Your task to perform on an android device: Show me productivity apps on the Play Store Image 0: 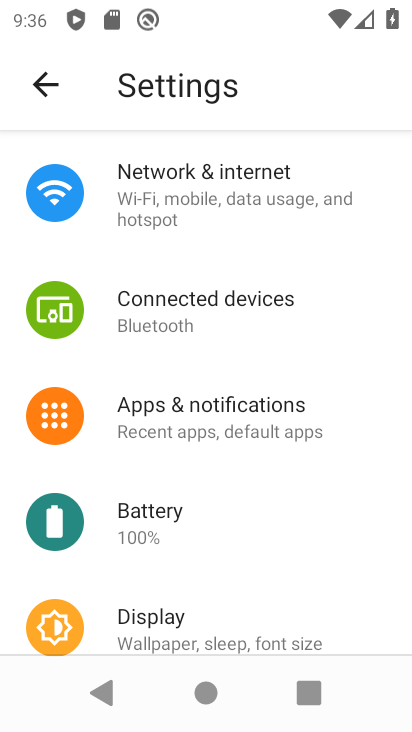
Step 0: press home button
Your task to perform on an android device: Show me productivity apps on the Play Store Image 1: 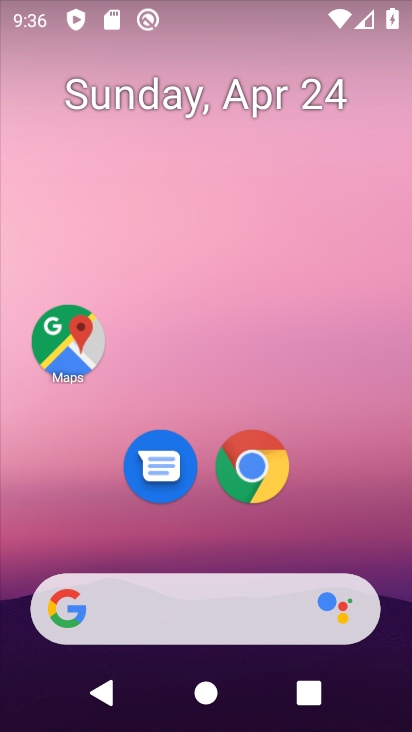
Step 1: drag from (370, 519) to (340, 0)
Your task to perform on an android device: Show me productivity apps on the Play Store Image 2: 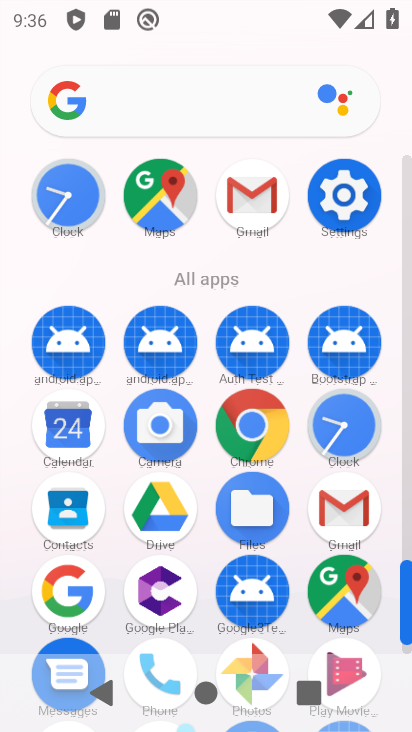
Step 2: drag from (285, 284) to (264, 56)
Your task to perform on an android device: Show me productivity apps on the Play Store Image 3: 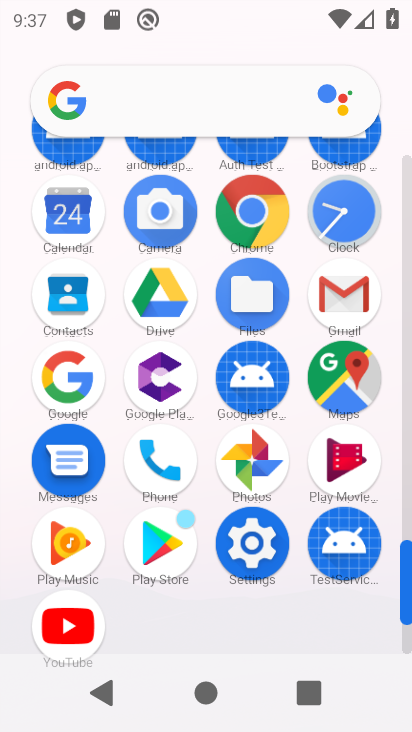
Step 3: click (140, 531)
Your task to perform on an android device: Show me productivity apps on the Play Store Image 4: 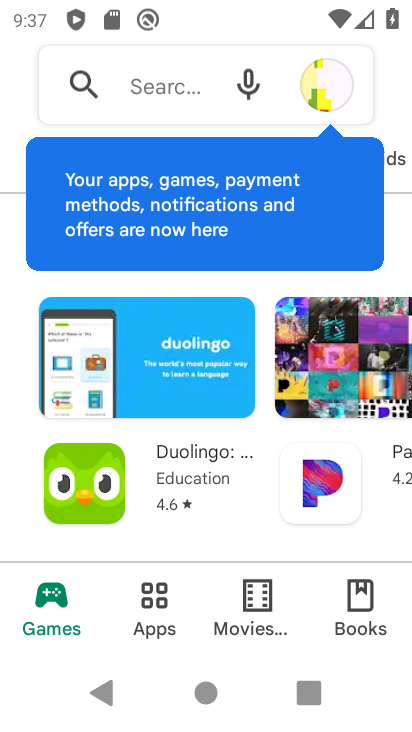
Step 4: click (161, 631)
Your task to perform on an android device: Show me productivity apps on the Play Store Image 5: 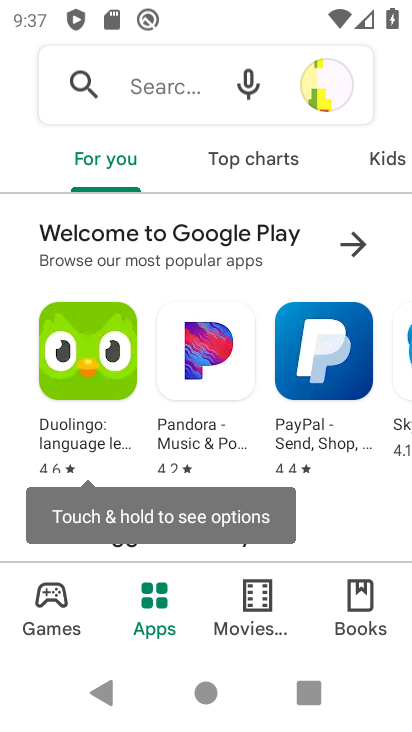
Step 5: drag from (332, 151) to (65, 170)
Your task to perform on an android device: Show me productivity apps on the Play Store Image 6: 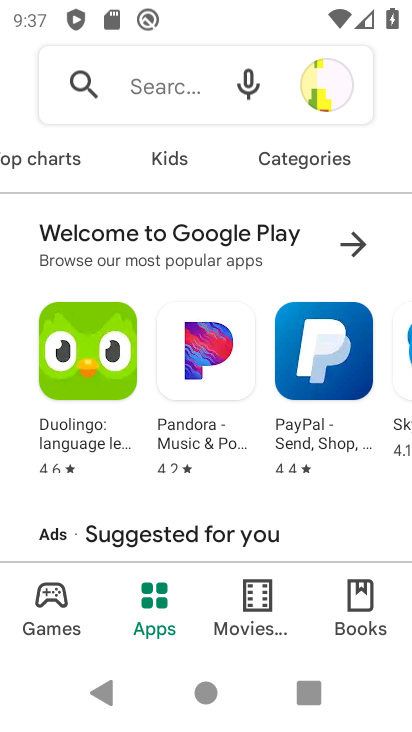
Step 6: click (279, 155)
Your task to perform on an android device: Show me productivity apps on the Play Store Image 7: 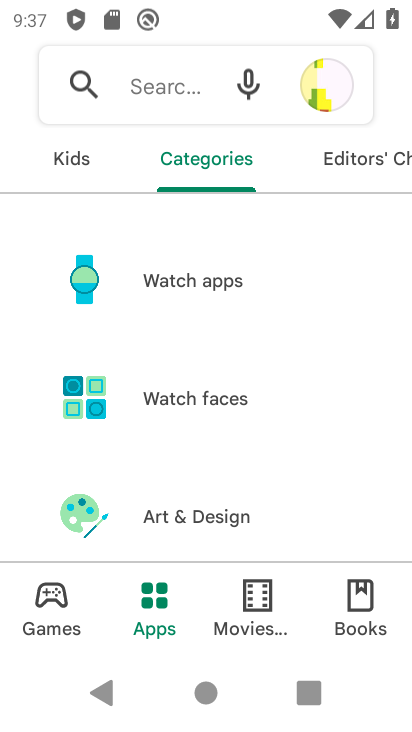
Step 7: drag from (254, 483) to (224, 3)
Your task to perform on an android device: Show me productivity apps on the Play Store Image 8: 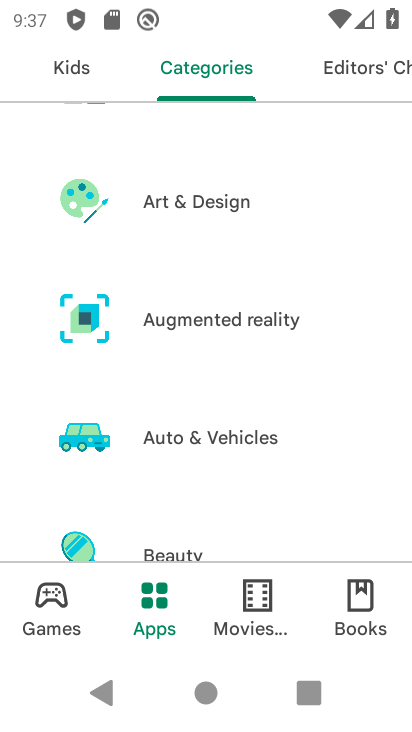
Step 8: drag from (237, 536) to (193, 3)
Your task to perform on an android device: Show me productivity apps on the Play Store Image 9: 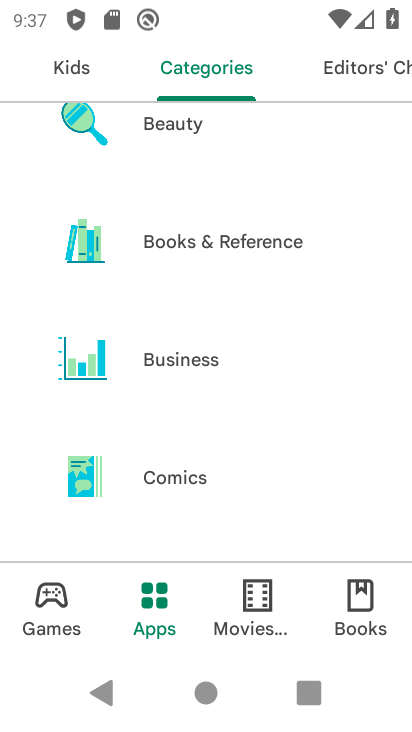
Step 9: drag from (208, 542) to (216, 26)
Your task to perform on an android device: Show me productivity apps on the Play Store Image 10: 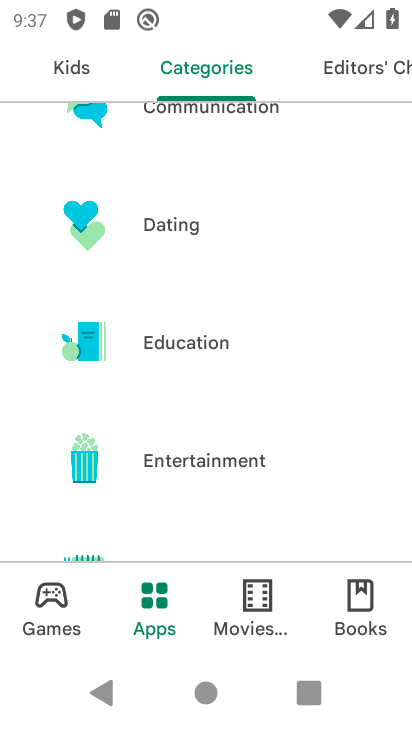
Step 10: drag from (224, 532) to (199, 1)
Your task to perform on an android device: Show me productivity apps on the Play Store Image 11: 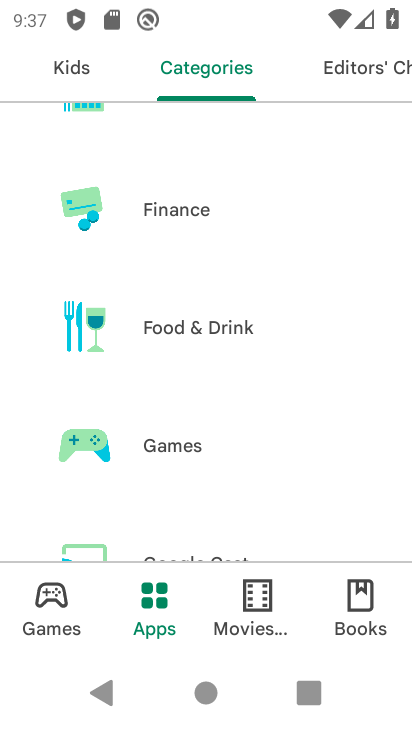
Step 11: drag from (228, 522) to (204, 27)
Your task to perform on an android device: Show me productivity apps on the Play Store Image 12: 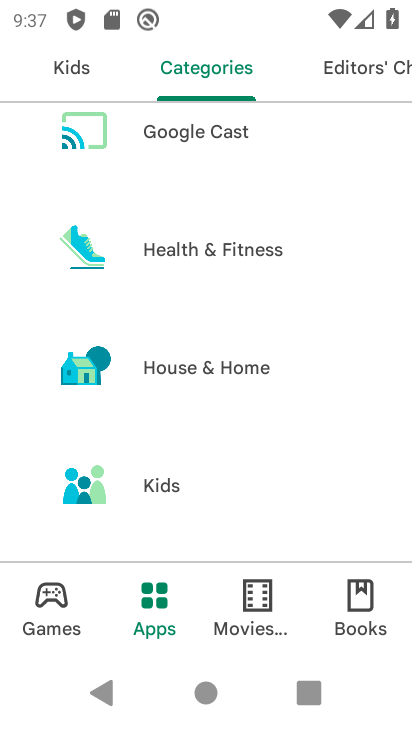
Step 12: drag from (221, 435) to (211, 0)
Your task to perform on an android device: Show me productivity apps on the Play Store Image 13: 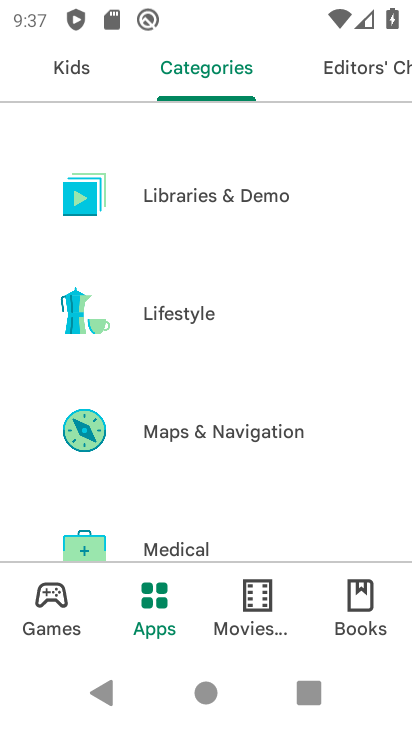
Step 13: drag from (194, 518) to (215, 10)
Your task to perform on an android device: Show me productivity apps on the Play Store Image 14: 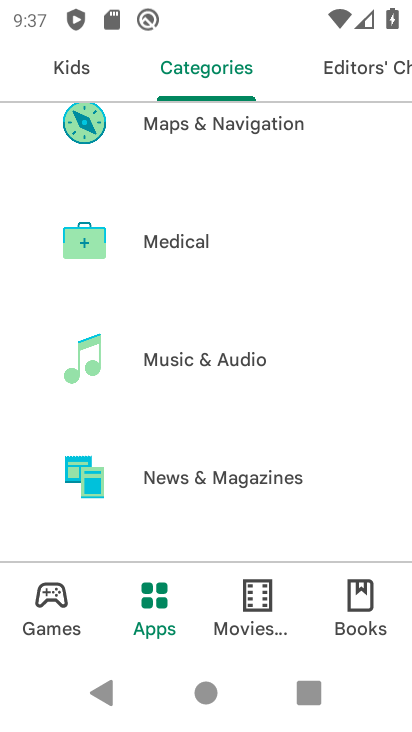
Step 14: drag from (194, 467) to (210, 36)
Your task to perform on an android device: Show me productivity apps on the Play Store Image 15: 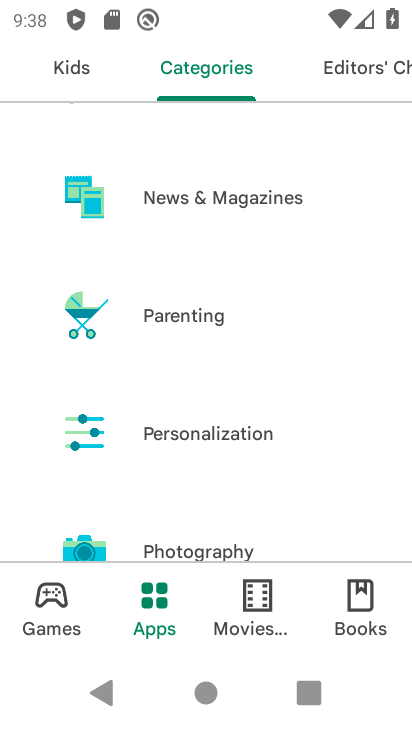
Step 15: drag from (203, 524) to (166, 173)
Your task to perform on an android device: Show me productivity apps on the Play Store Image 16: 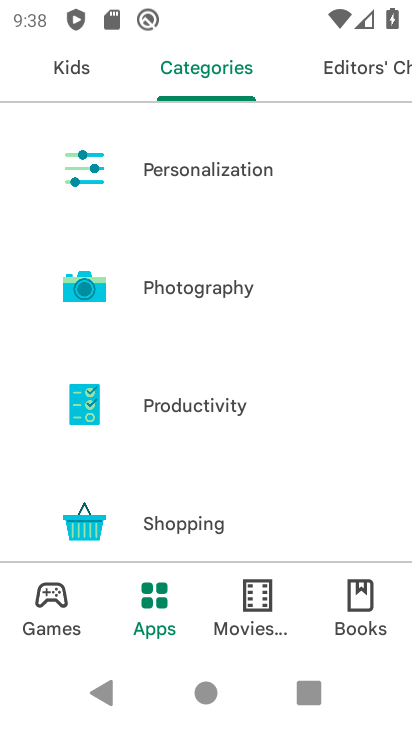
Step 16: click (177, 394)
Your task to perform on an android device: Show me productivity apps on the Play Store Image 17: 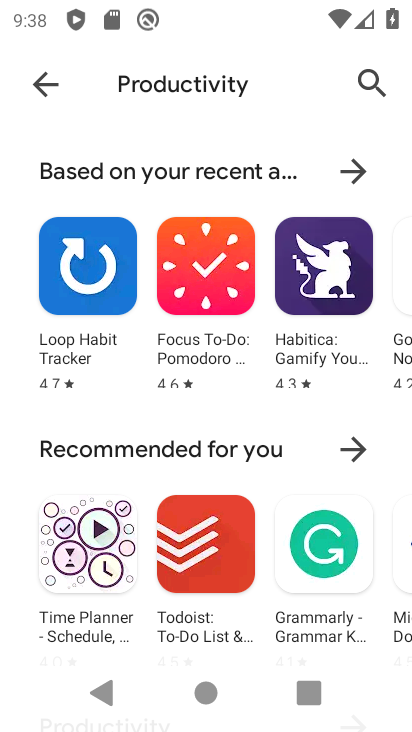
Step 17: task complete